Your task to perform on an android device: turn on priority inbox in the gmail app Image 0: 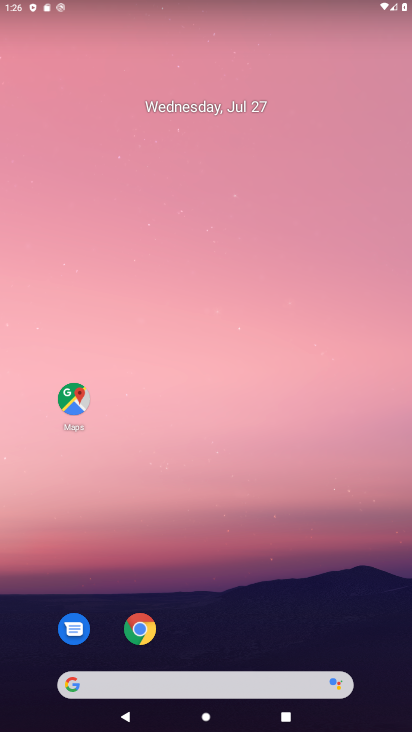
Step 0: press home button
Your task to perform on an android device: turn on priority inbox in the gmail app Image 1: 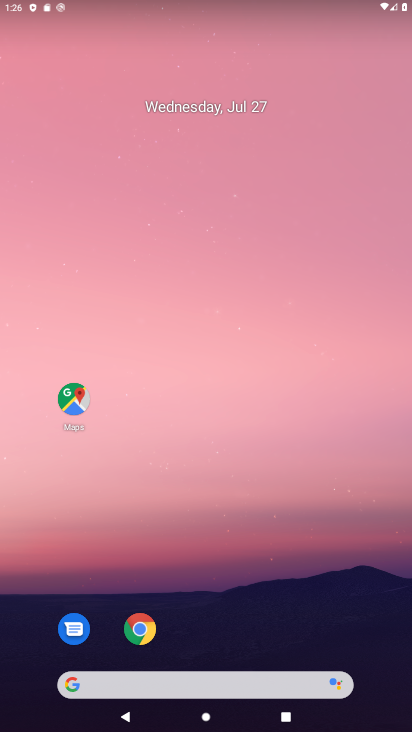
Step 1: drag from (263, 643) to (328, 30)
Your task to perform on an android device: turn on priority inbox in the gmail app Image 2: 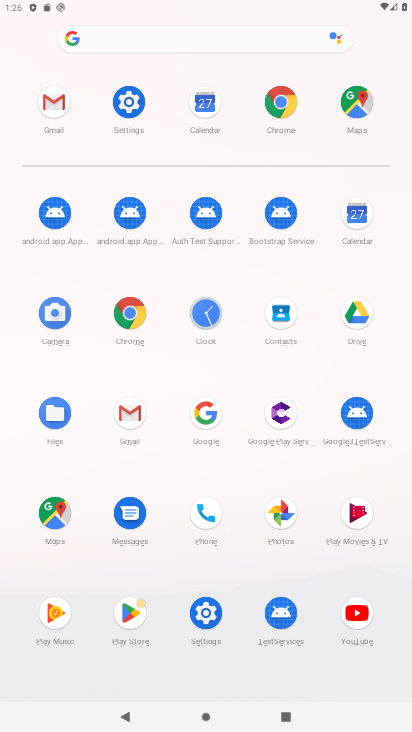
Step 2: click (48, 118)
Your task to perform on an android device: turn on priority inbox in the gmail app Image 3: 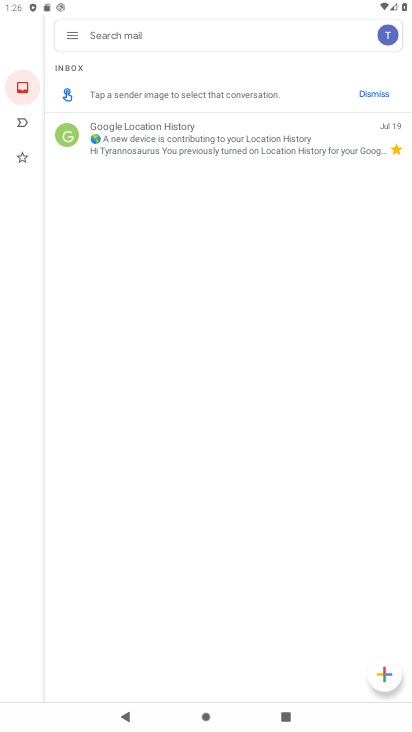
Step 3: click (74, 27)
Your task to perform on an android device: turn on priority inbox in the gmail app Image 4: 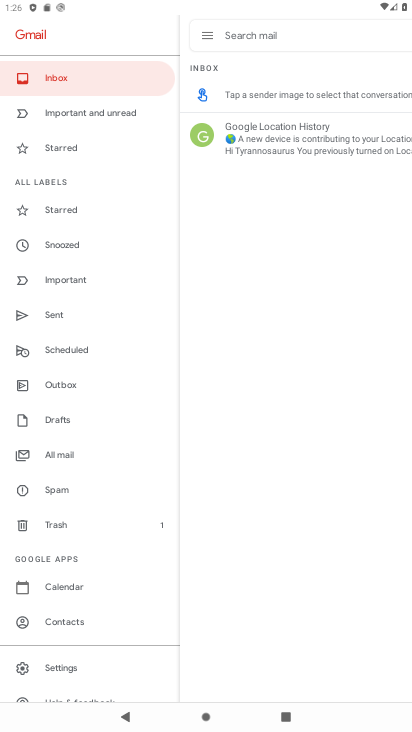
Step 4: click (69, 671)
Your task to perform on an android device: turn on priority inbox in the gmail app Image 5: 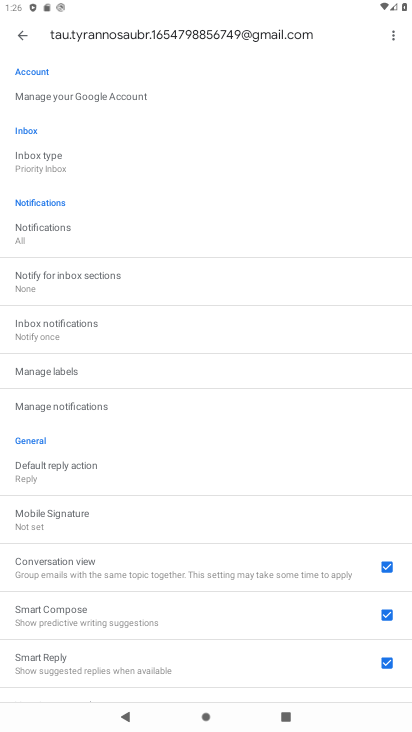
Step 5: click (33, 169)
Your task to perform on an android device: turn on priority inbox in the gmail app Image 6: 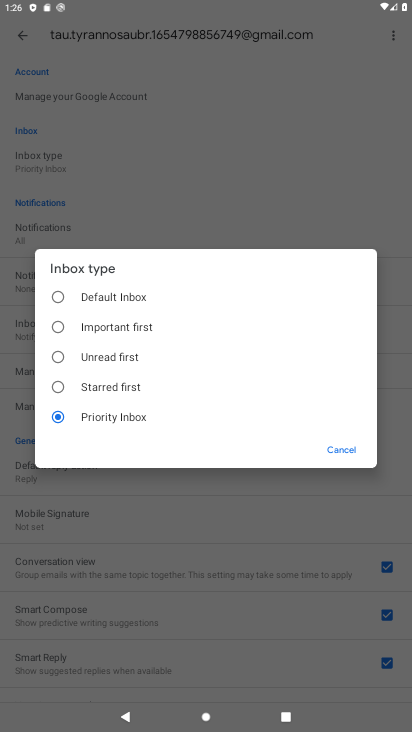
Step 6: task complete